Your task to perform on an android device: Empty the shopping cart on newegg. Add asus zenbook to the cart on newegg Image 0: 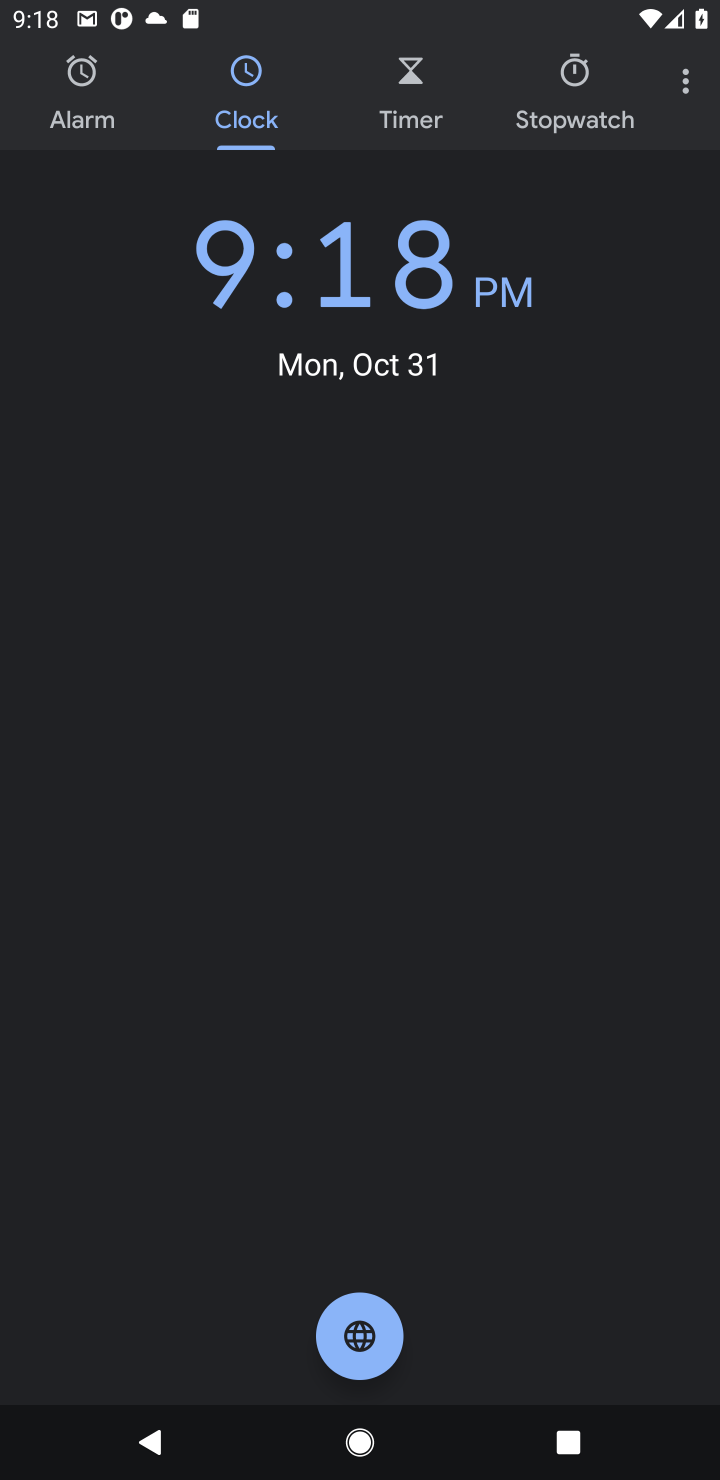
Step 0: press home button
Your task to perform on an android device: Empty the shopping cart on newegg. Add asus zenbook to the cart on newegg Image 1: 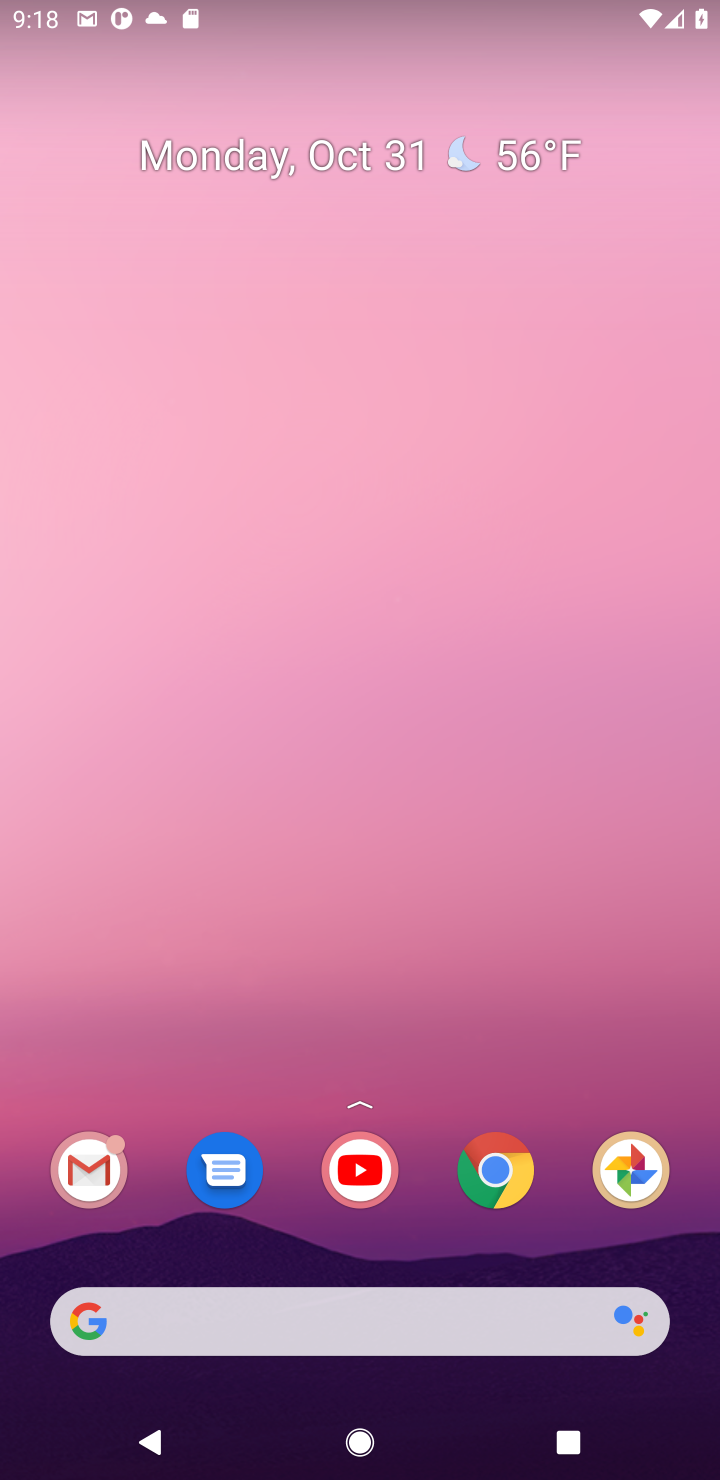
Step 1: click (463, 1146)
Your task to perform on an android device: Empty the shopping cart on newegg. Add asus zenbook to the cart on newegg Image 2: 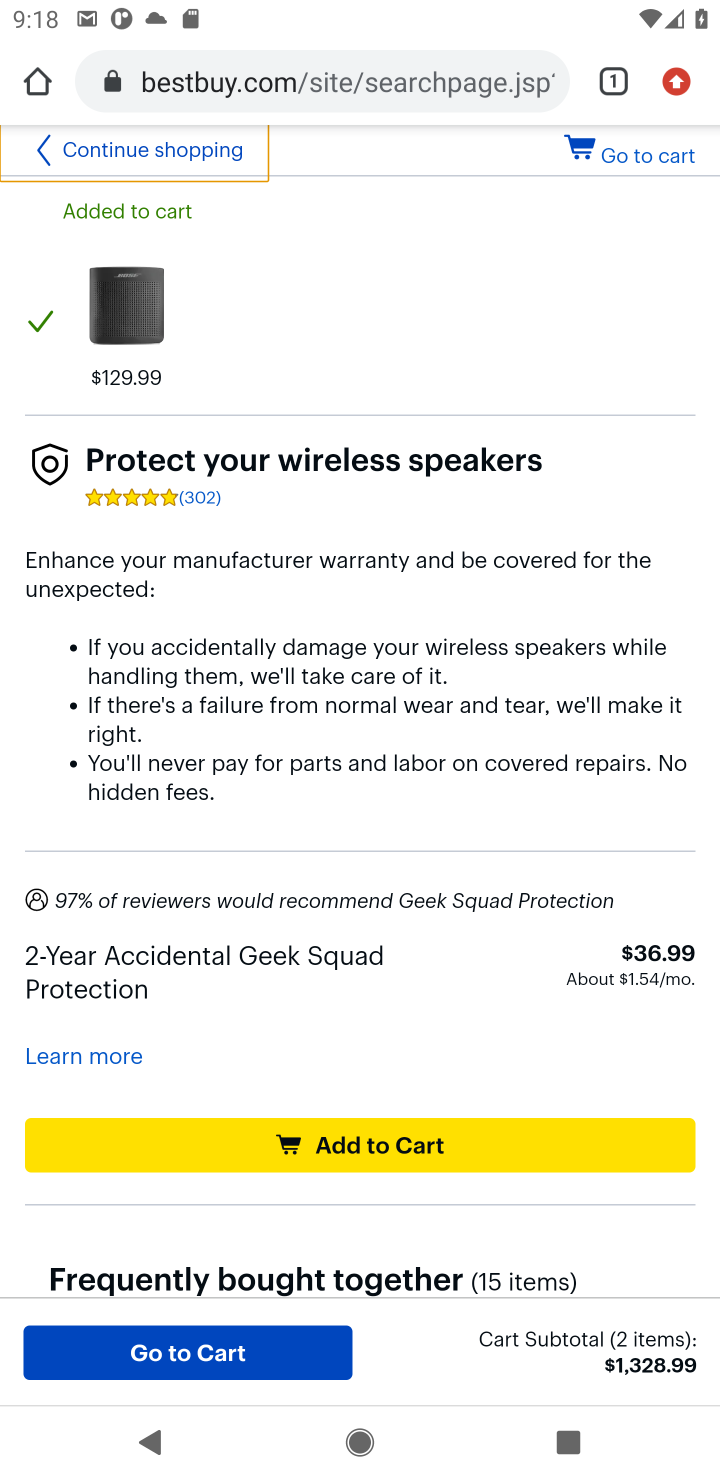
Step 2: click (248, 85)
Your task to perform on an android device: Empty the shopping cart on newegg. Add asus zenbook to the cart on newegg Image 3: 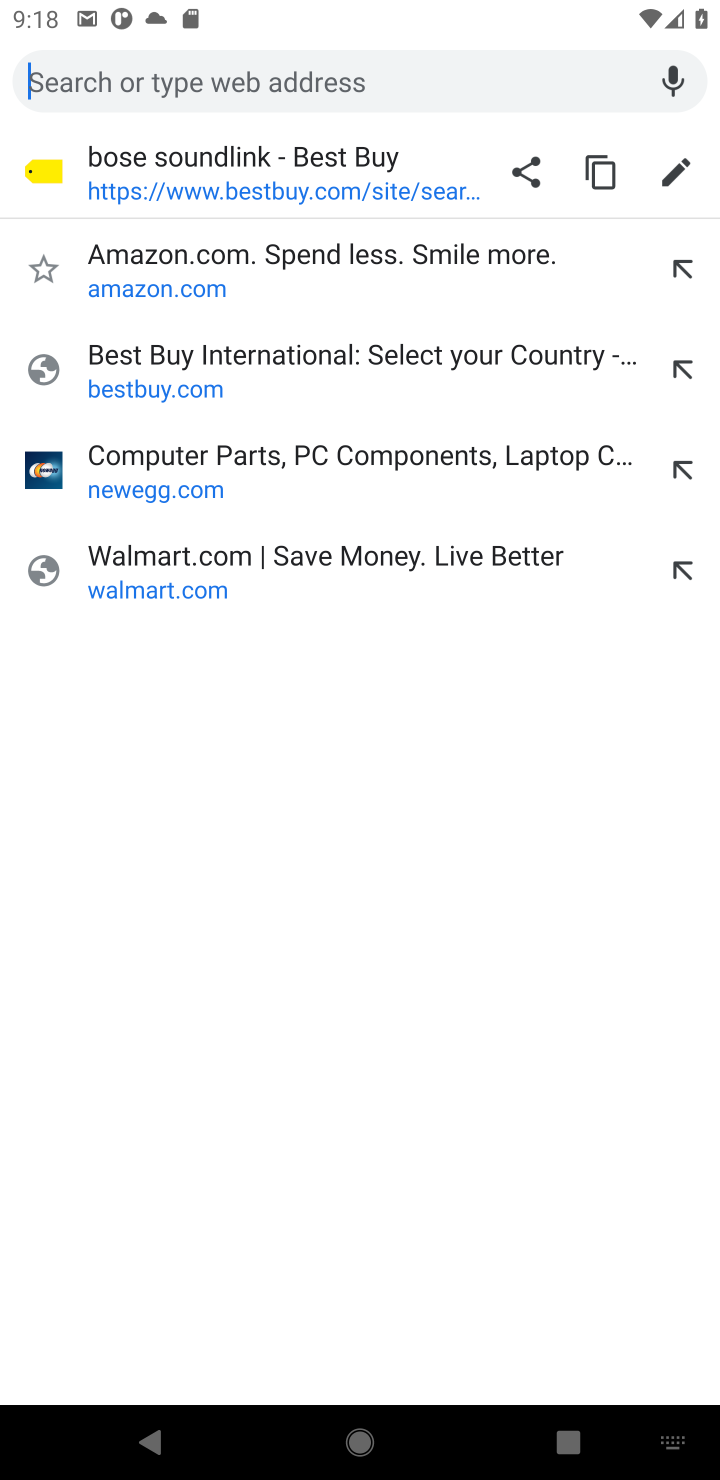
Step 3: click (173, 460)
Your task to perform on an android device: Empty the shopping cart on newegg. Add asus zenbook to the cart on newegg Image 4: 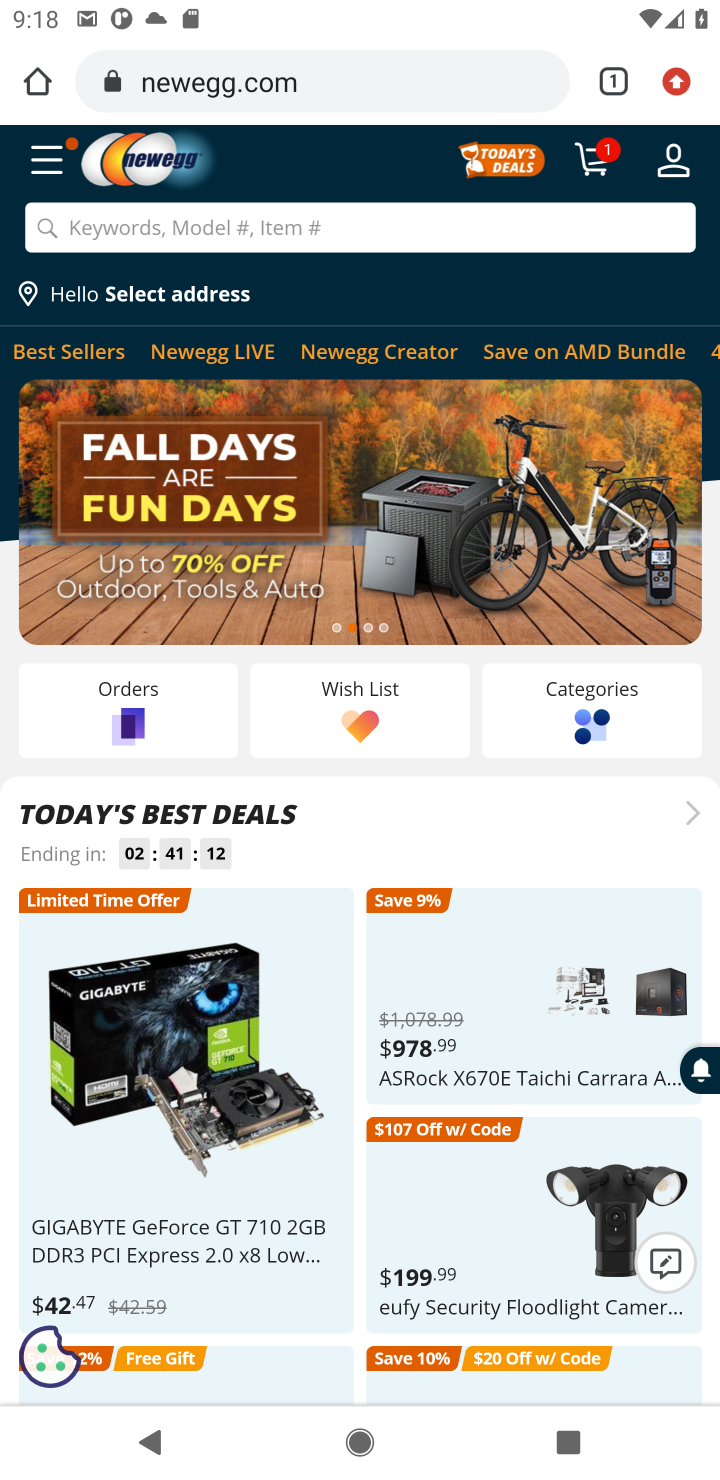
Step 4: click (594, 164)
Your task to perform on an android device: Empty the shopping cart on newegg. Add asus zenbook to the cart on newegg Image 5: 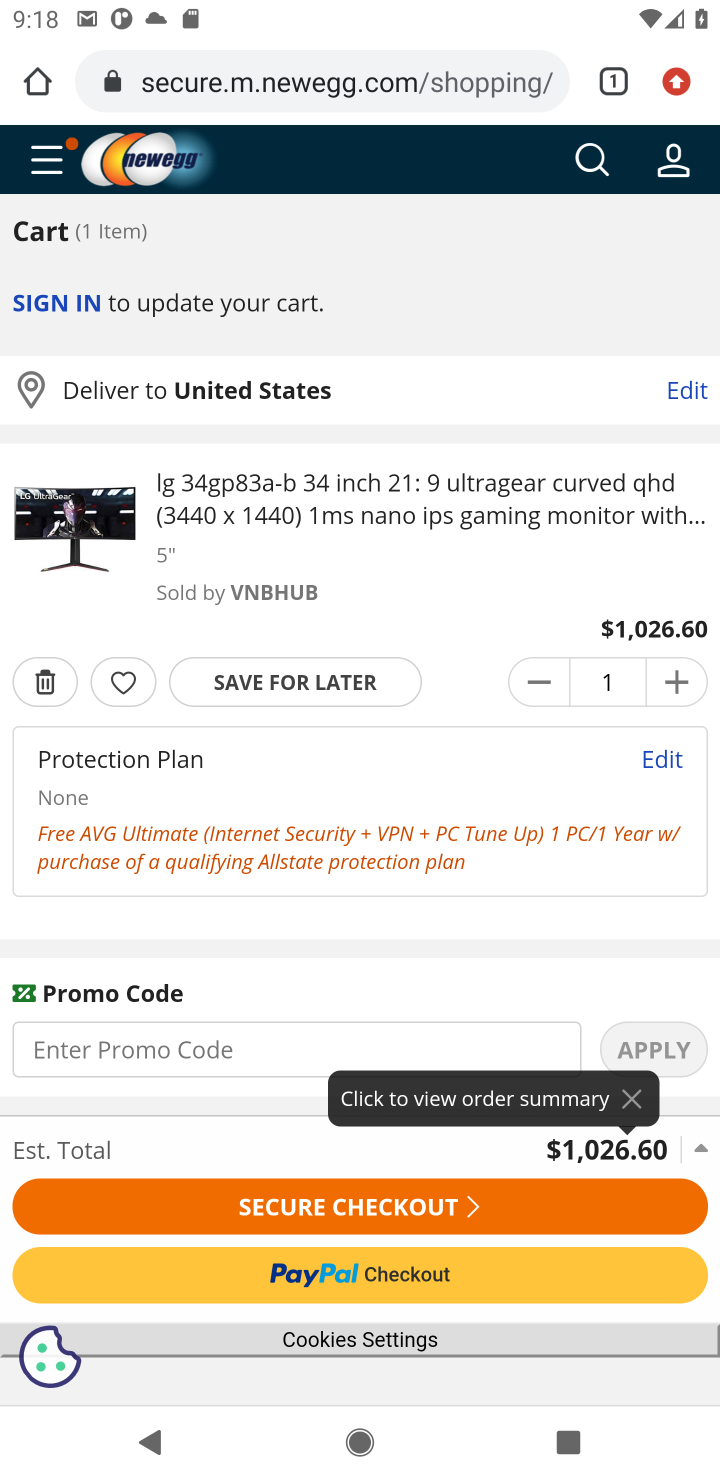
Step 5: click (37, 695)
Your task to perform on an android device: Empty the shopping cart on newegg. Add asus zenbook to the cart on newegg Image 6: 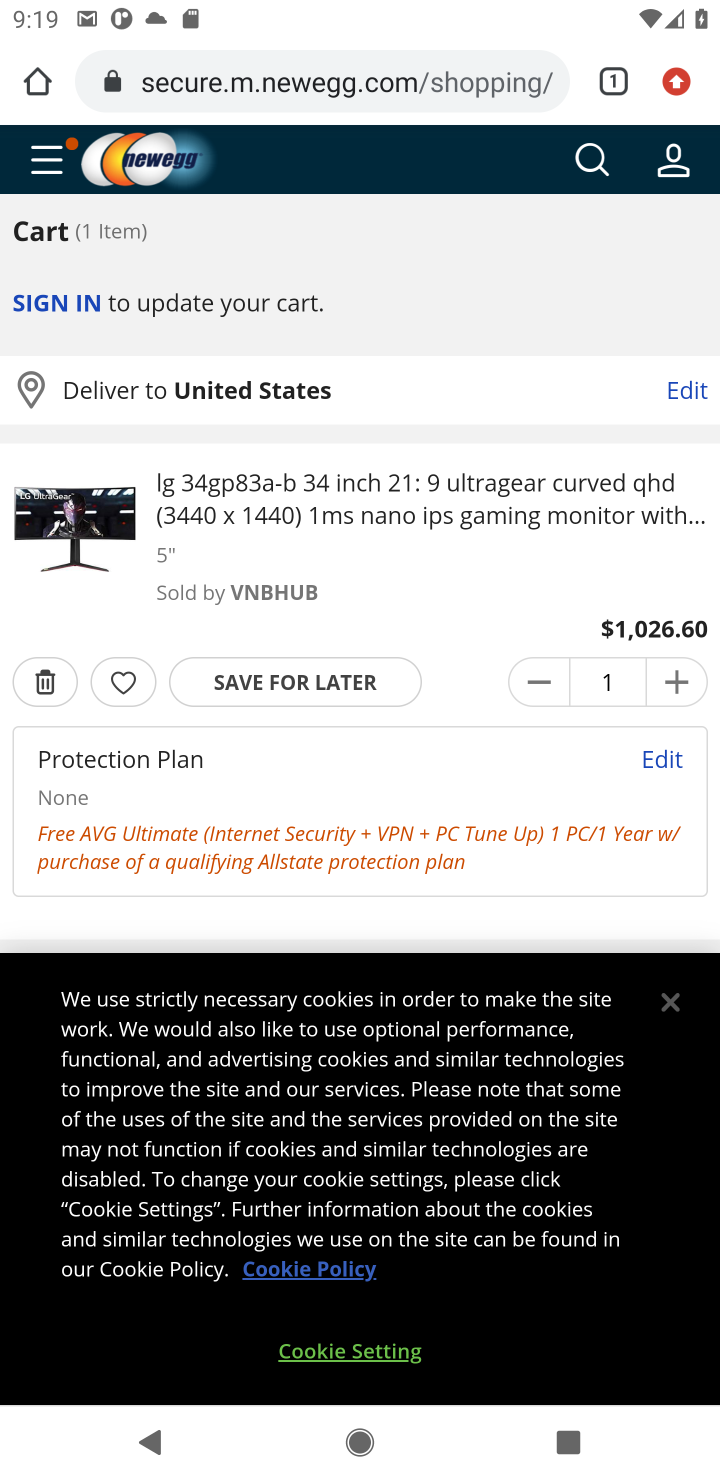
Step 6: click (50, 682)
Your task to perform on an android device: Empty the shopping cart on newegg. Add asus zenbook to the cart on newegg Image 7: 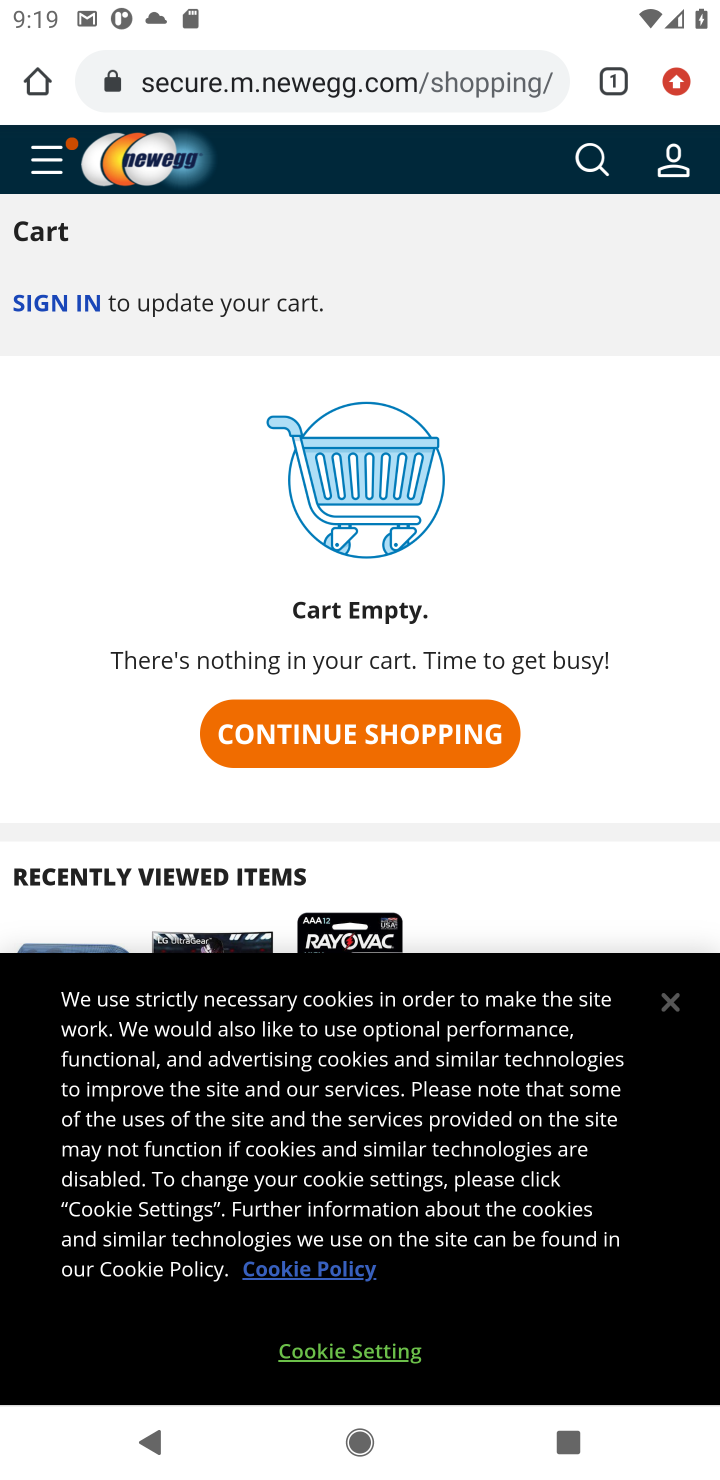
Step 7: click (605, 168)
Your task to perform on an android device: Empty the shopping cart on newegg. Add asus zenbook to the cart on newegg Image 8: 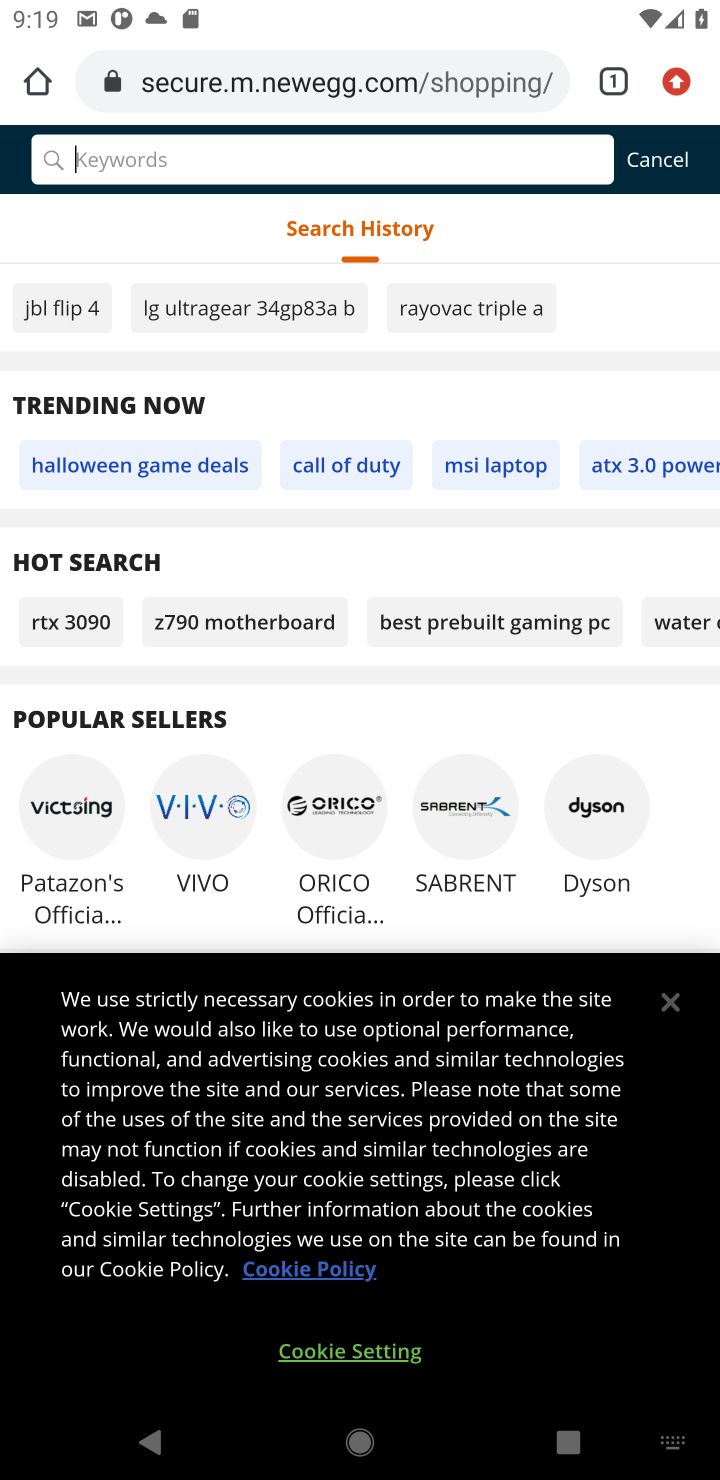
Step 8: type "asus zenbook "
Your task to perform on an android device: Empty the shopping cart on newegg. Add asus zenbook to the cart on newegg Image 9: 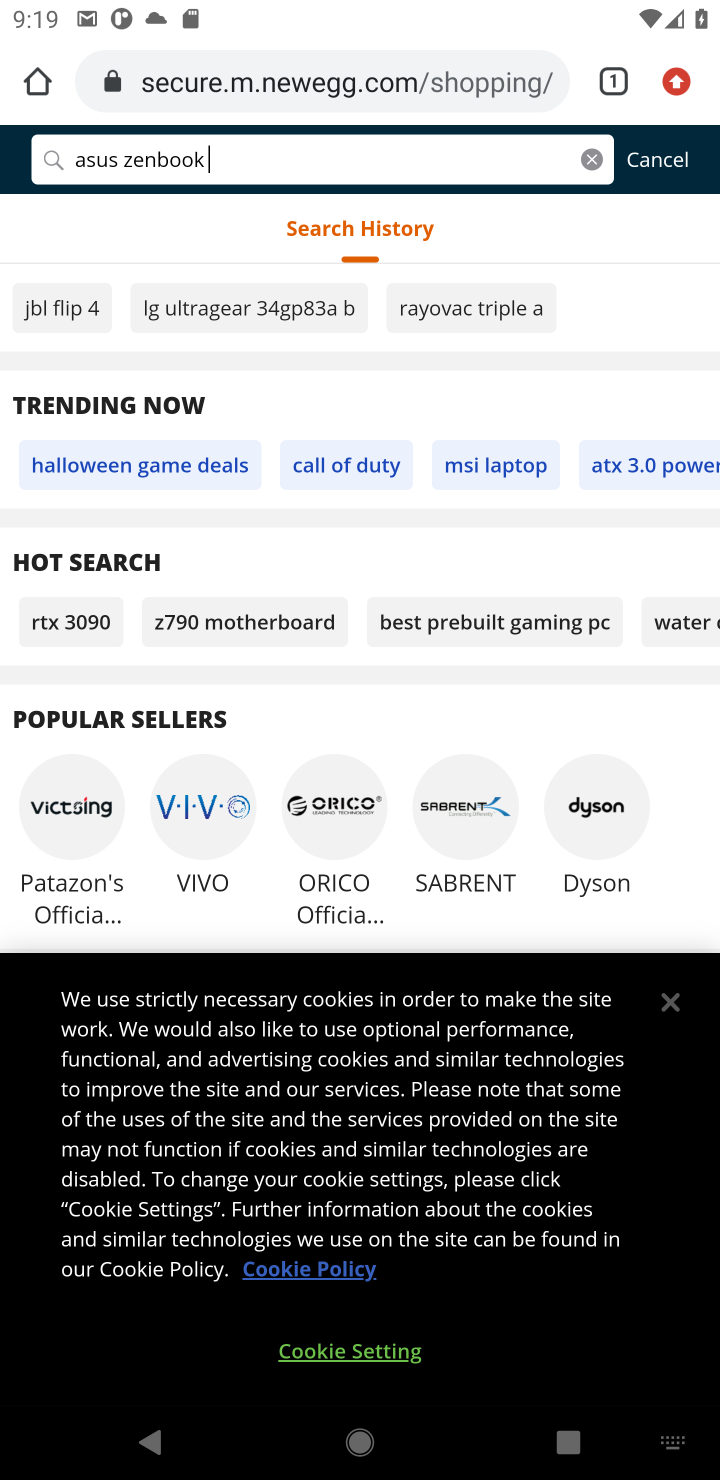
Step 9: type ""
Your task to perform on an android device: Empty the shopping cart on newegg. Add asus zenbook to the cart on newegg Image 10: 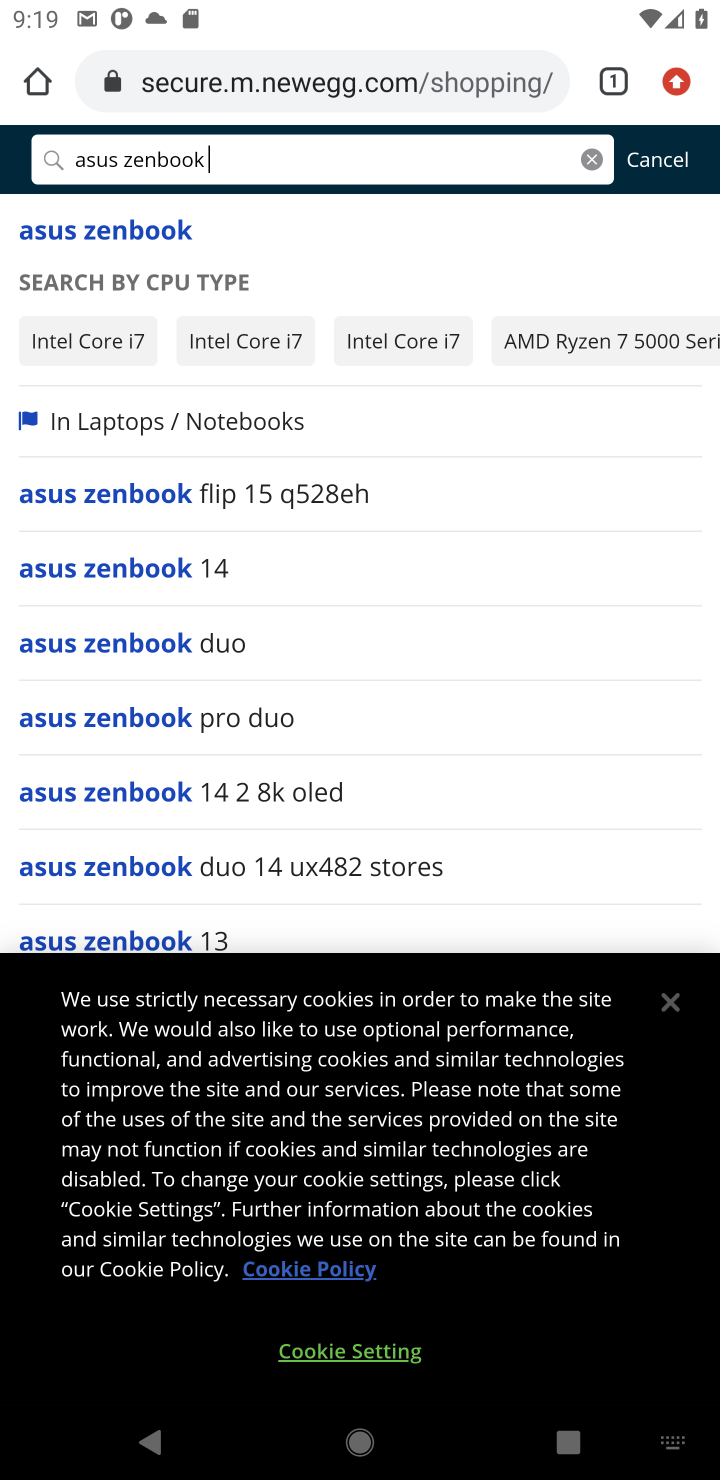
Step 10: click (146, 241)
Your task to perform on an android device: Empty the shopping cart on newegg. Add asus zenbook to the cart on newegg Image 11: 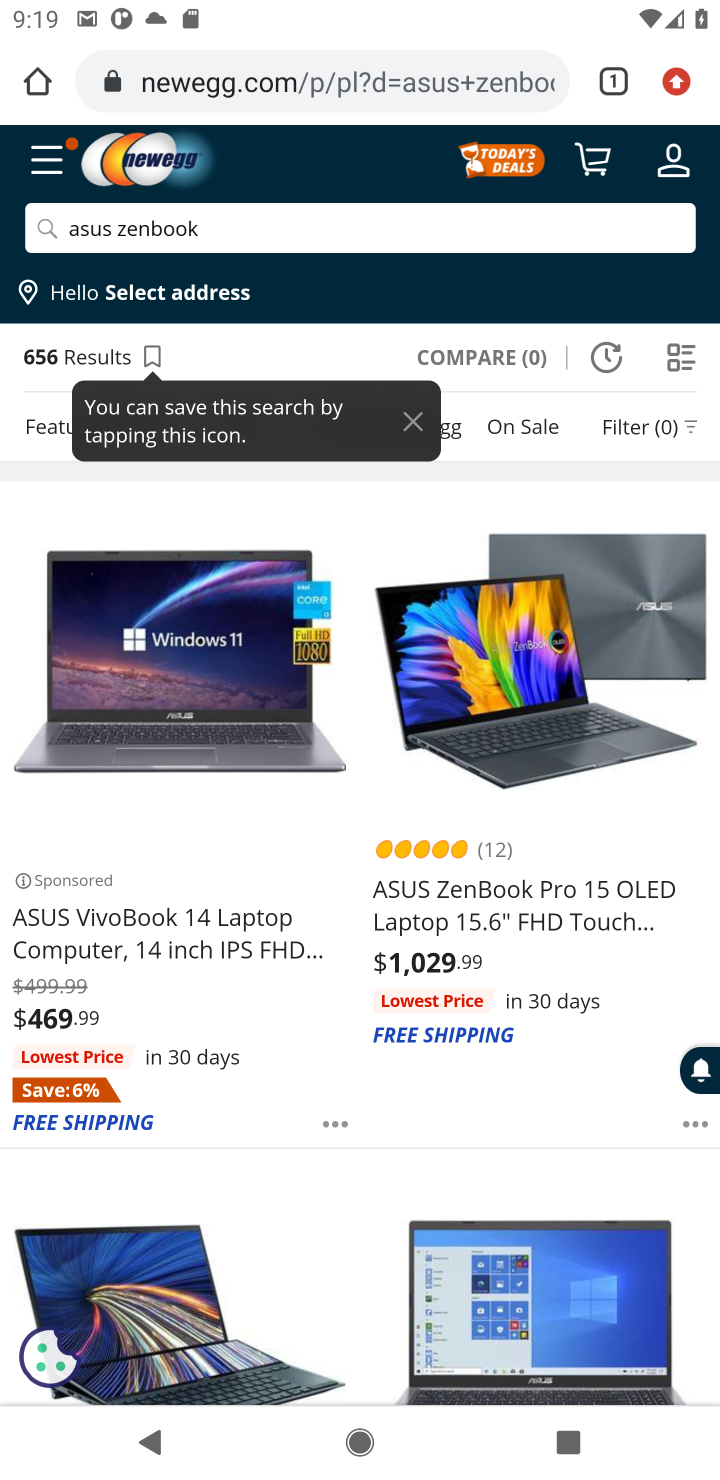
Step 11: click (552, 832)
Your task to perform on an android device: Empty the shopping cart on newegg. Add asus zenbook to the cart on newegg Image 12: 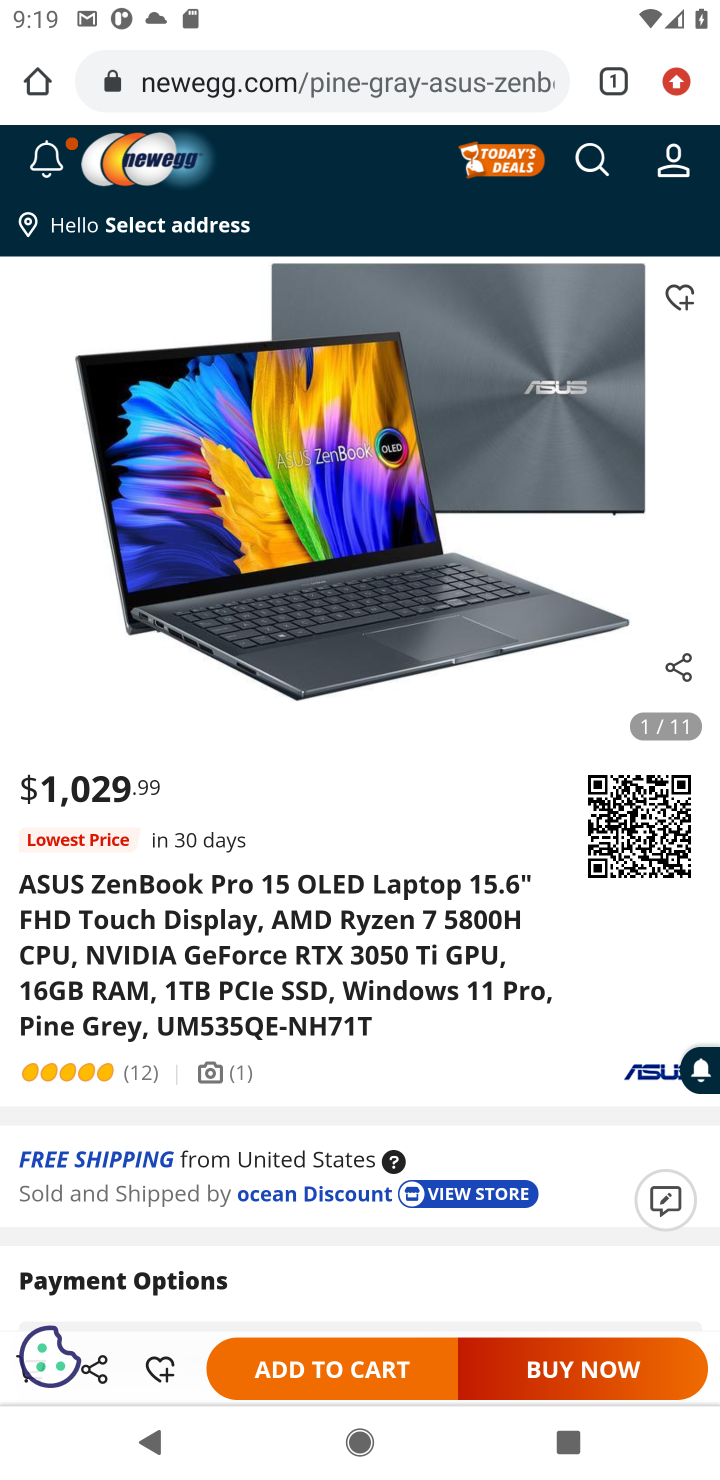
Step 12: click (317, 1358)
Your task to perform on an android device: Empty the shopping cart on newegg. Add asus zenbook to the cart on newegg Image 13: 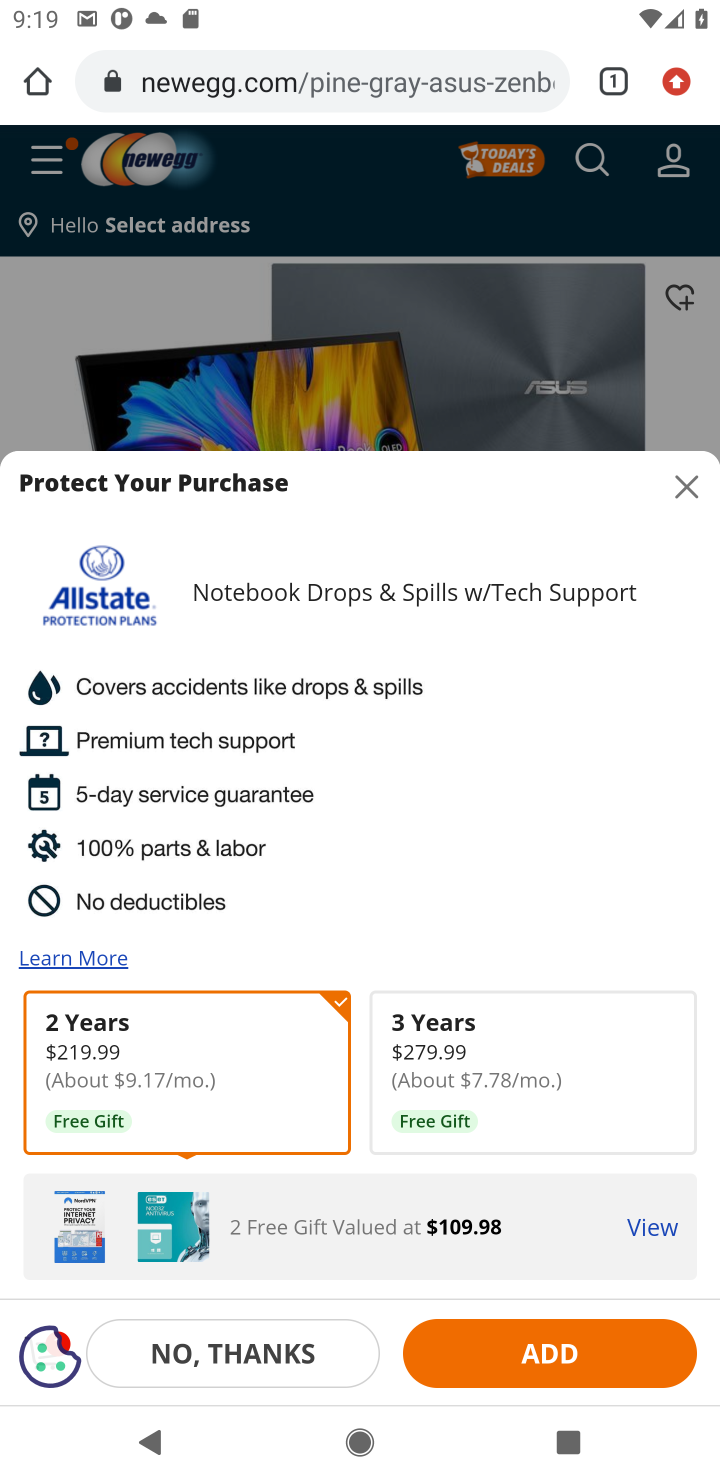
Step 13: task complete